Your task to perform on an android device: change notifications settings Image 0: 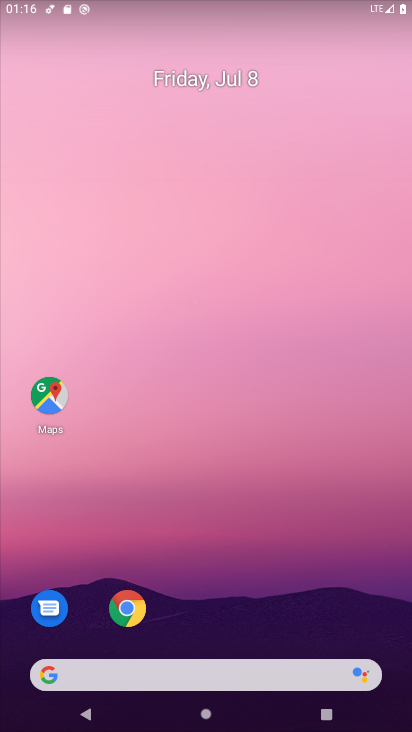
Step 0: drag from (218, 637) to (258, 126)
Your task to perform on an android device: change notifications settings Image 1: 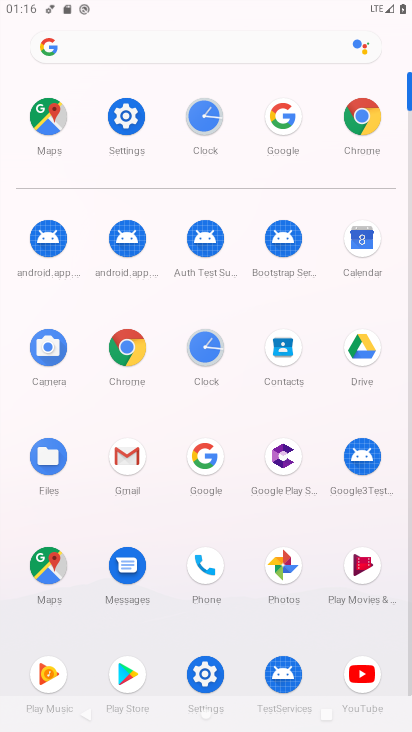
Step 1: click (124, 106)
Your task to perform on an android device: change notifications settings Image 2: 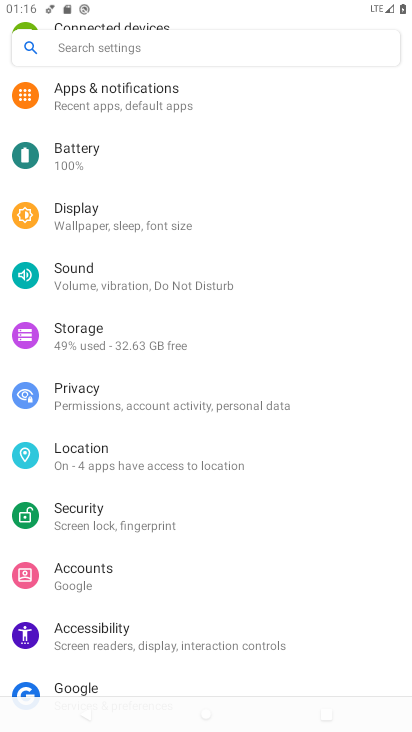
Step 2: click (101, 99)
Your task to perform on an android device: change notifications settings Image 3: 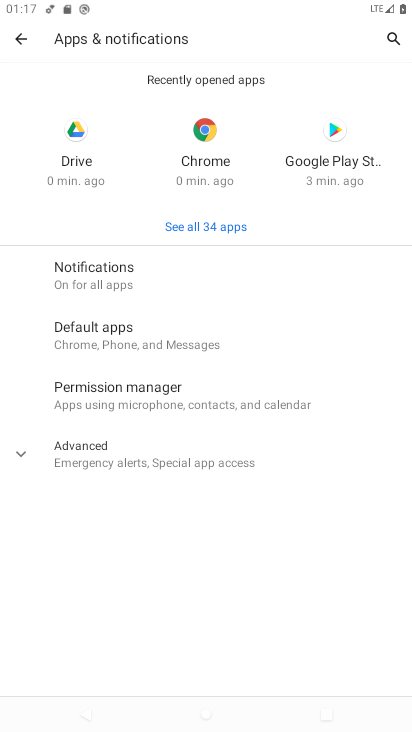
Step 3: click (99, 274)
Your task to perform on an android device: change notifications settings Image 4: 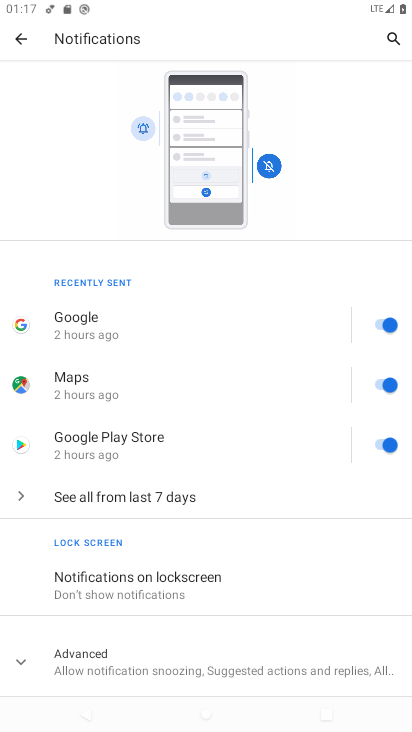
Step 4: click (154, 482)
Your task to perform on an android device: change notifications settings Image 5: 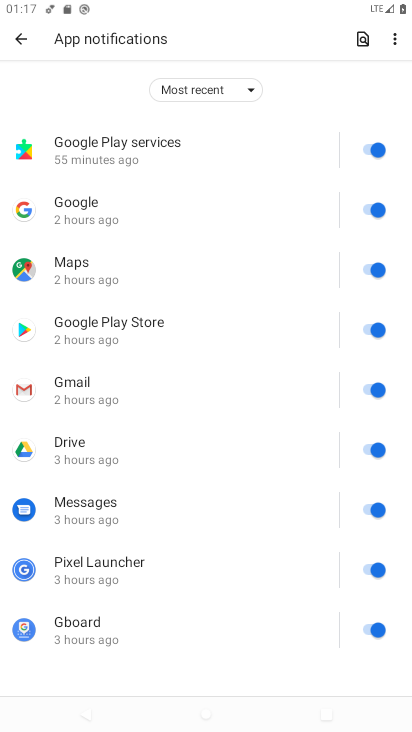
Step 5: click (154, 487)
Your task to perform on an android device: change notifications settings Image 6: 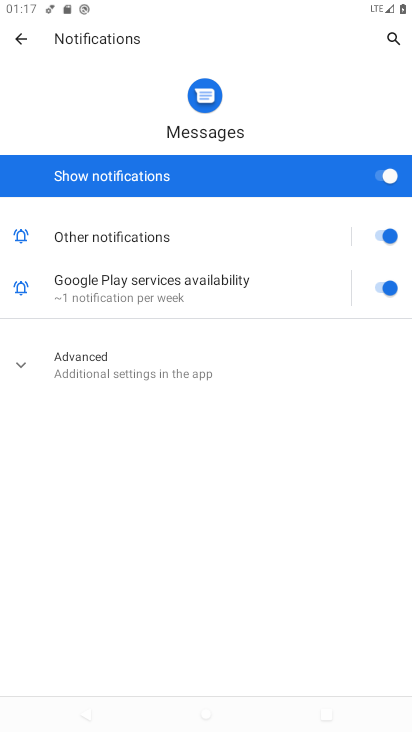
Step 6: click (16, 40)
Your task to perform on an android device: change notifications settings Image 7: 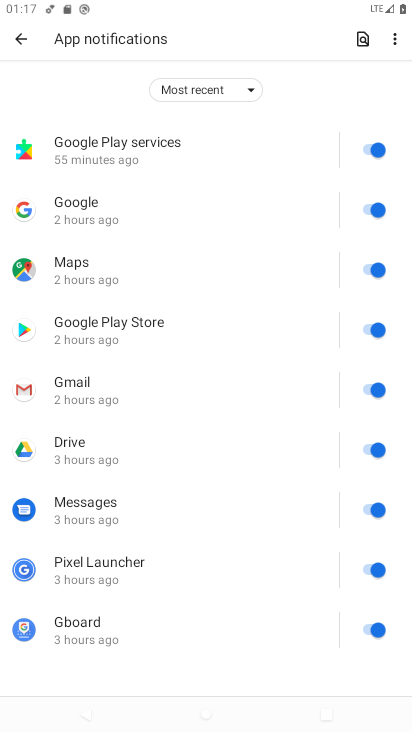
Step 7: click (380, 128)
Your task to perform on an android device: change notifications settings Image 8: 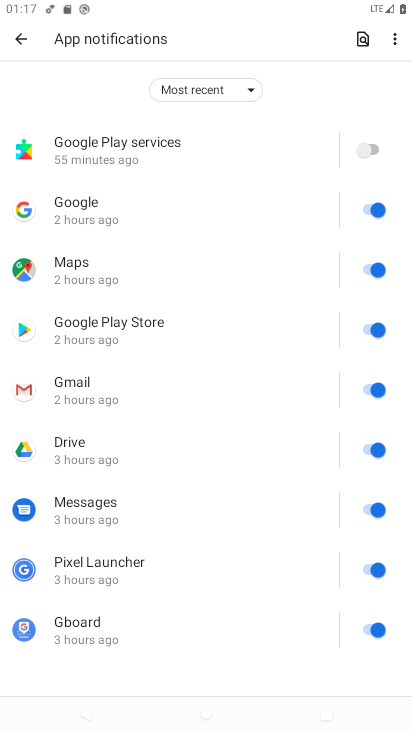
Step 8: click (378, 190)
Your task to perform on an android device: change notifications settings Image 9: 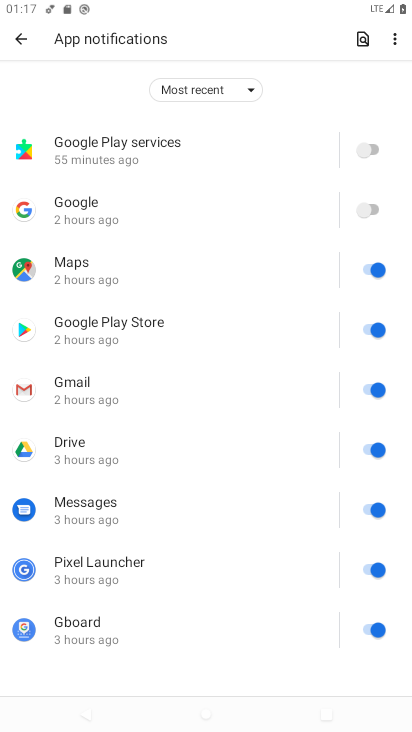
Step 9: click (385, 267)
Your task to perform on an android device: change notifications settings Image 10: 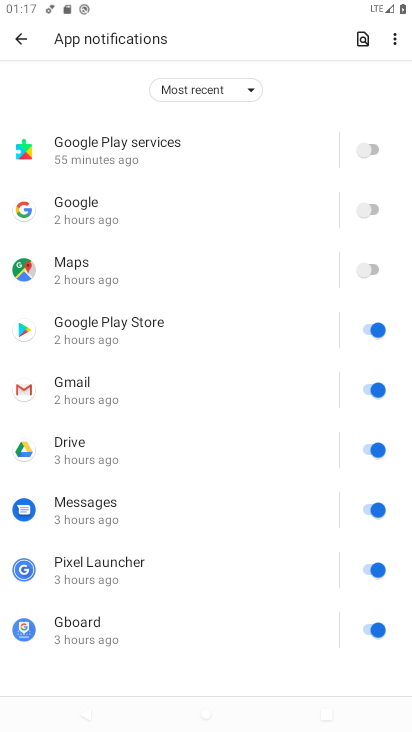
Step 10: click (376, 331)
Your task to perform on an android device: change notifications settings Image 11: 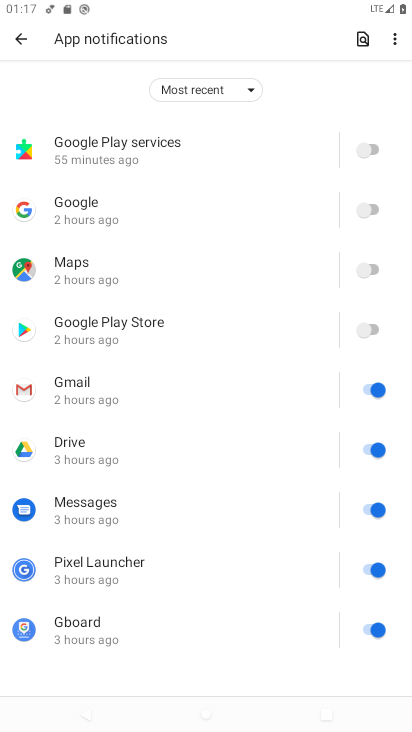
Step 11: click (362, 387)
Your task to perform on an android device: change notifications settings Image 12: 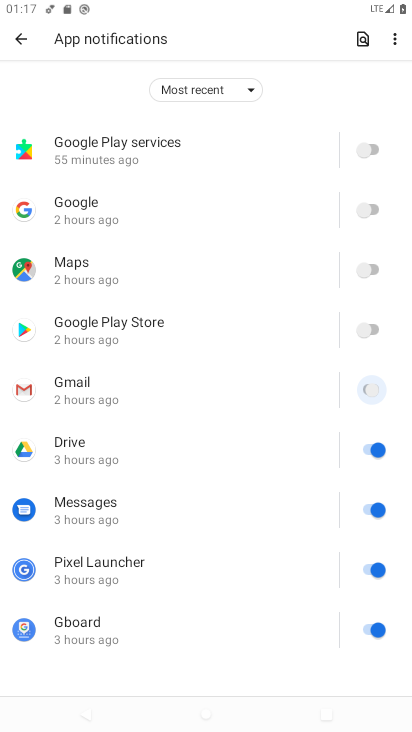
Step 12: click (370, 452)
Your task to perform on an android device: change notifications settings Image 13: 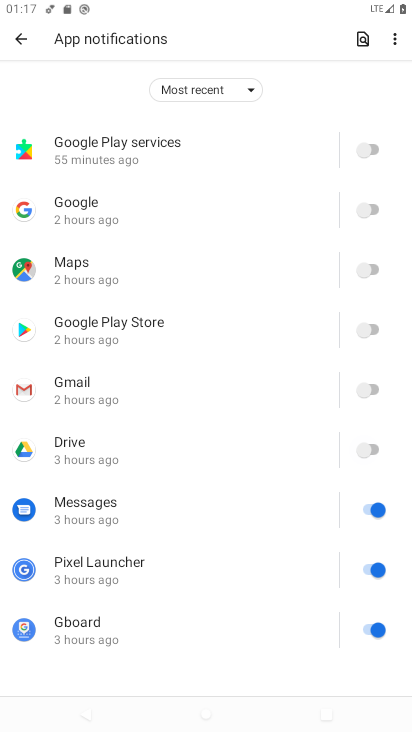
Step 13: click (377, 513)
Your task to perform on an android device: change notifications settings Image 14: 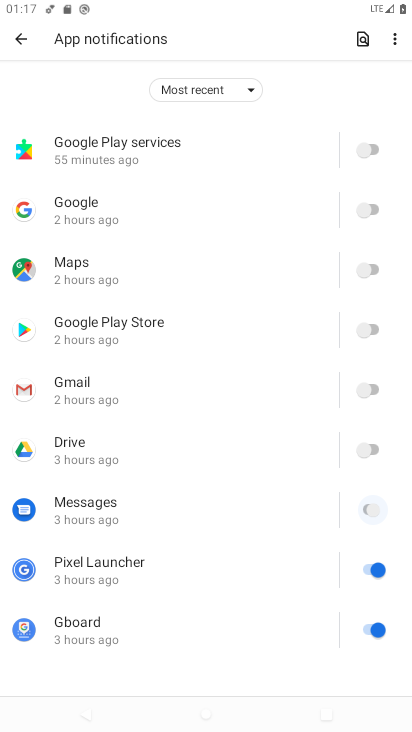
Step 14: click (369, 558)
Your task to perform on an android device: change notifications settings Image 15: 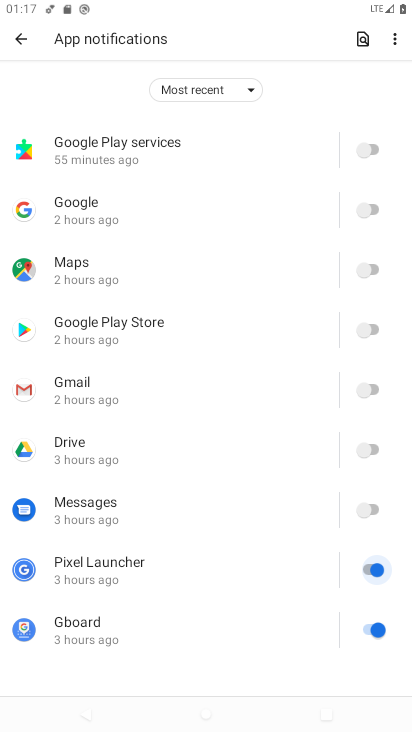
Step 15: click (371, 631)
Your task to perform on an android device: change notifications settings Image 16: 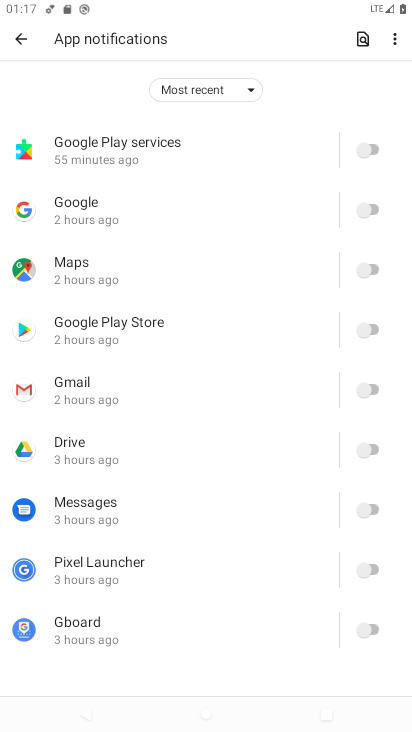
Step 16: task complete